Your task to perform on an android device: toggle notifications settings in the gmail app Image 0: 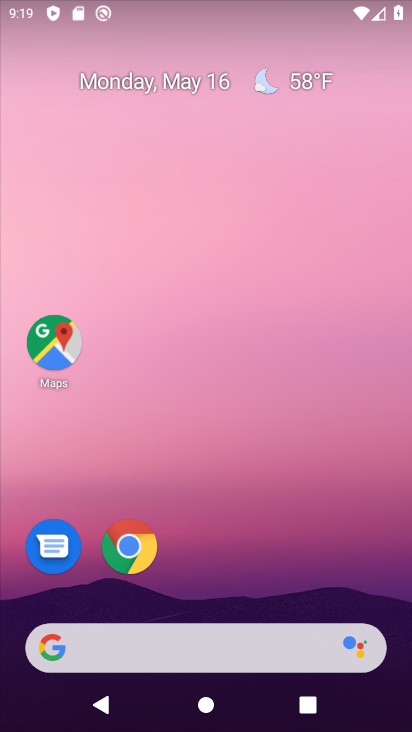
Step 0: drag from (296, 569) to (168, 133)
Your task to perform on an android device: toggle notifications settings in the gmail app Image 1: 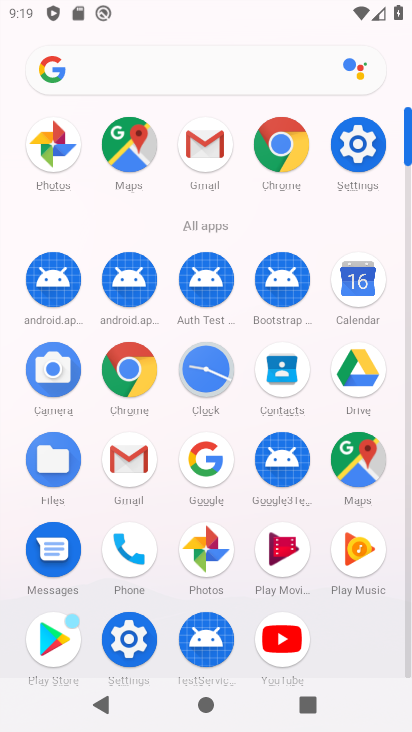
Step 1: click (204, 143)
Your task to perform on an android device: toggle notifications settings in the gmail app Image 2: 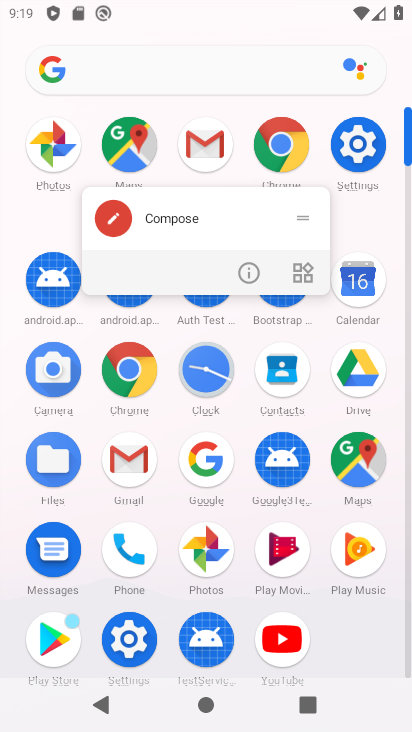
Step 2: click (204, 143)
Your task to perform on an android device: toggle notifications settings in the gmail app Image 3: 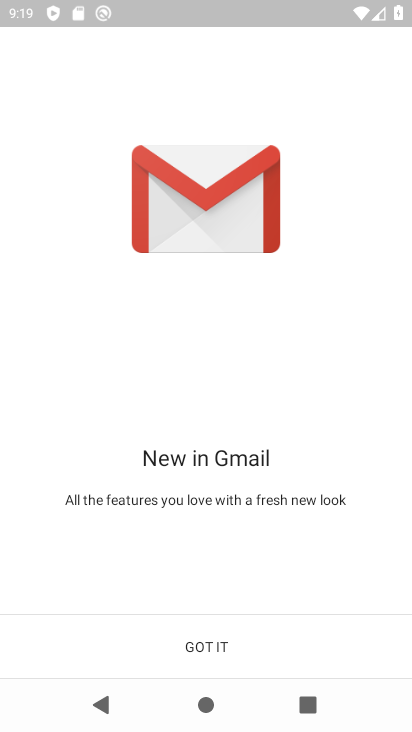
Step 3: click (204, 637)
Your task to perform on an android device: toggle notifications settings in the gmail app Image 4: 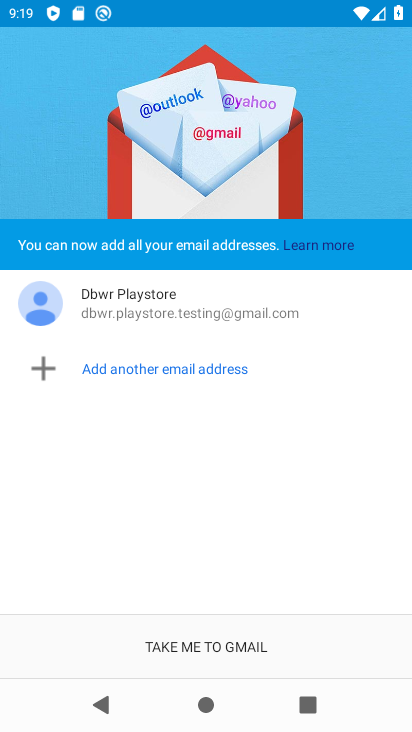
Step 4: click (207, 651)
Your task to perform on an android device: toggle notifications settings in the gmail app Image 5: 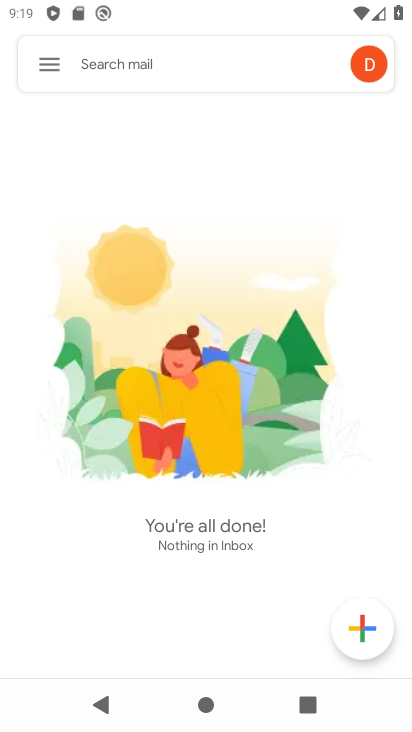
Step 5: click (49, 64)
Your task to perform on an android device: toggle notifications settings in the gmail app Image 6: 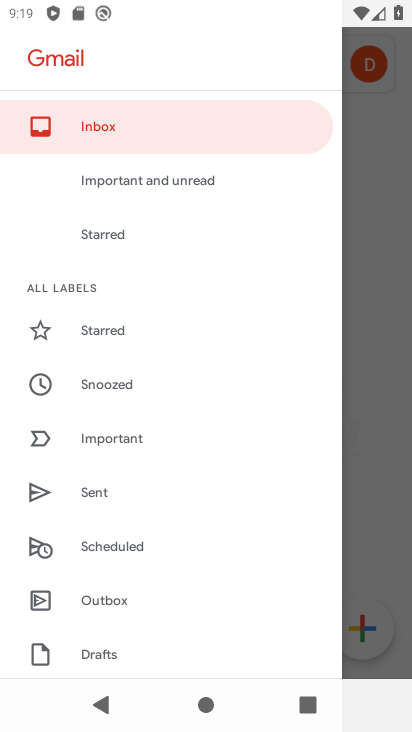
Step 6: drag from (144, 515) to (152, 430)
Your task to perform on an android device: toggle notifications settings in the gmail app Image 7: 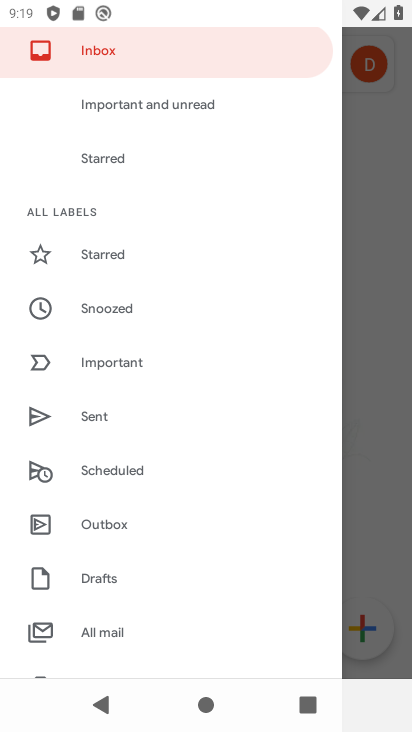
Step 7: drag from (110, 546) to (135, 469)
Your task to perform on an android device: toggle notifications settings in the gmail app Image 8: 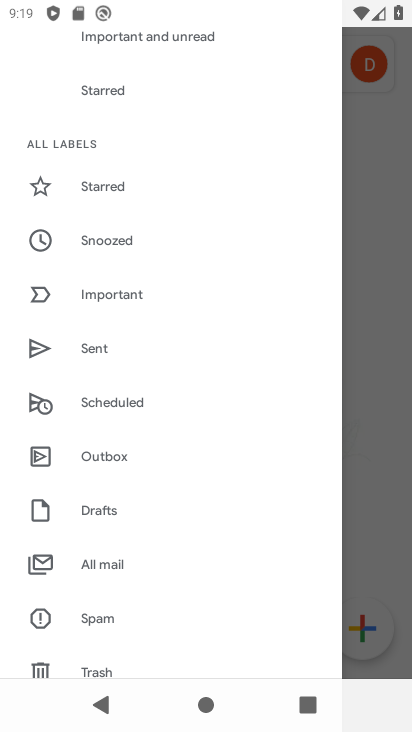
Step 8: drag from (100, 531) to (128, 462)
Your task to perform on an android device: toggle notifications settings in the gmail app Image 9: 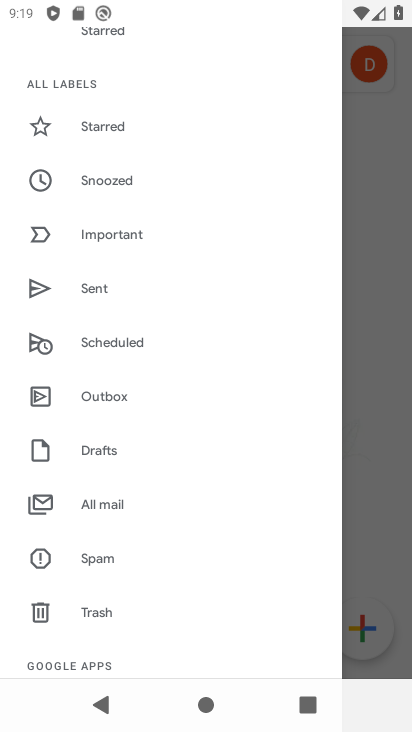
Step 9: drag from (98, 524) to (127, 448)
Your task to perform on an android device: toggle notifications settings in the gmail app Image 10: 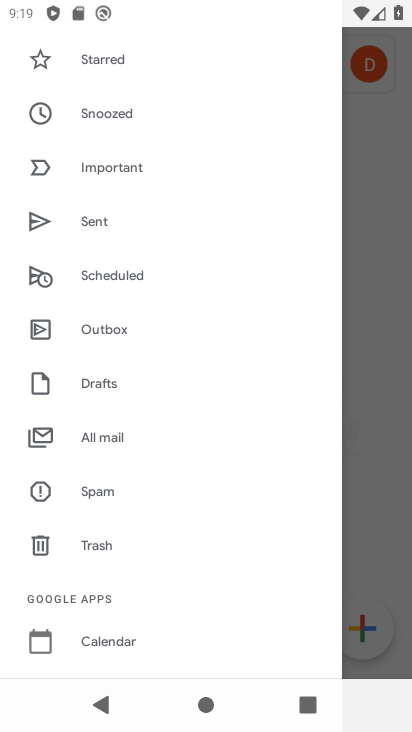
Step 10: drag from (93, 520) to (130, 449)
Your task to perform on an android device: toggle notifications settings in the gmail app Image 11: 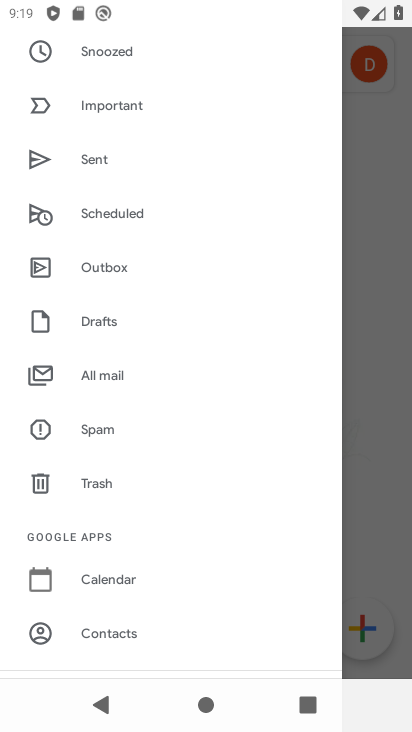
Step 11: drag from (84, 503) to (129, 425)
Your task to perform on an android device: toggle notifications settings in the gmail app Image 12: 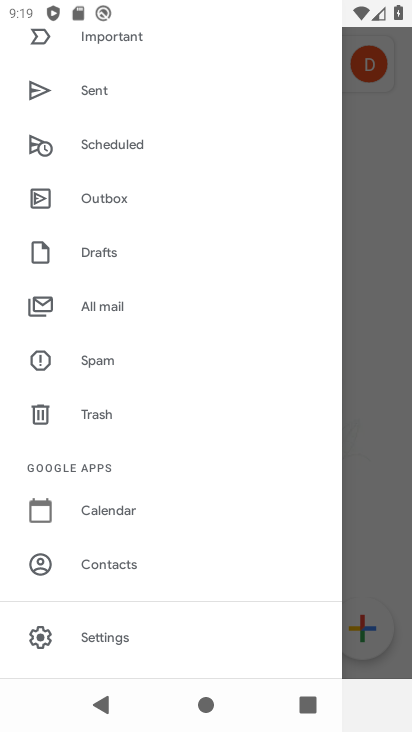
Step 12: drag from (91, 530) to (134, 456)
Your task to perform on an android device: toggle notifications settings in the gmail app Image 13: 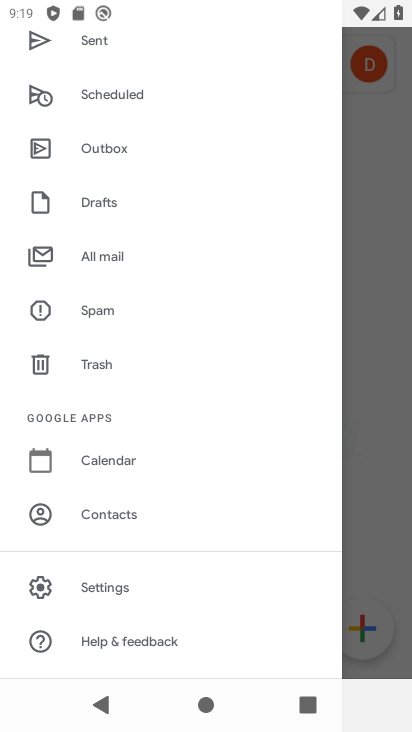
Step 13: click (112, 589)
Your task to perform on an android device: toggle notifications settings in the gmail app Image 14: 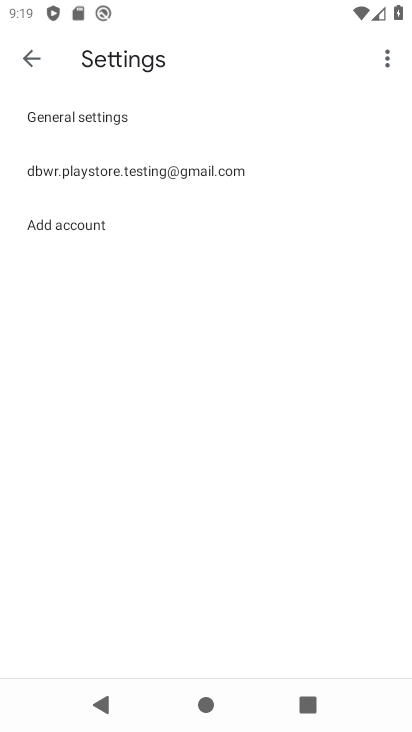
Step 14: click (103, 168)
Your task to perform on an android device: toggle notifications settings in the gmail app Image 15: 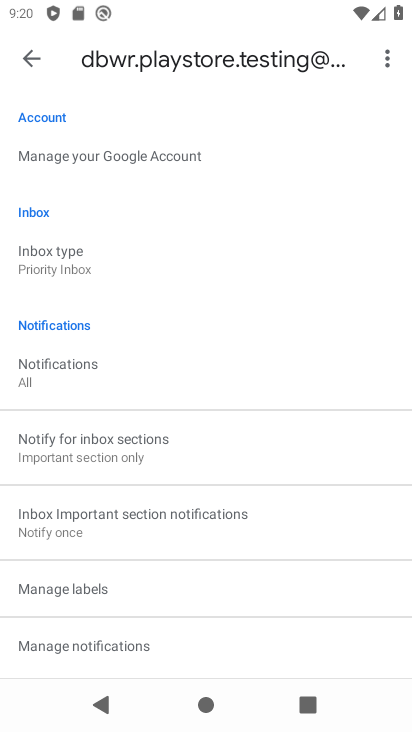
Step 15: drag from (151, 492) to (170, 422)
Your task to perform on an android device: toggle notifications settings in the gmail app Image 16: 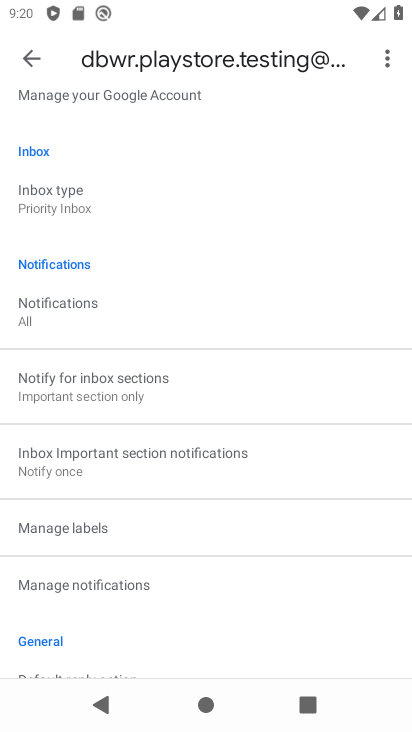
Step 16: drag from (148, 527) to (196, 456)
Your task to perform on an android device: toggle notifications settings in the gmail app Image 17: 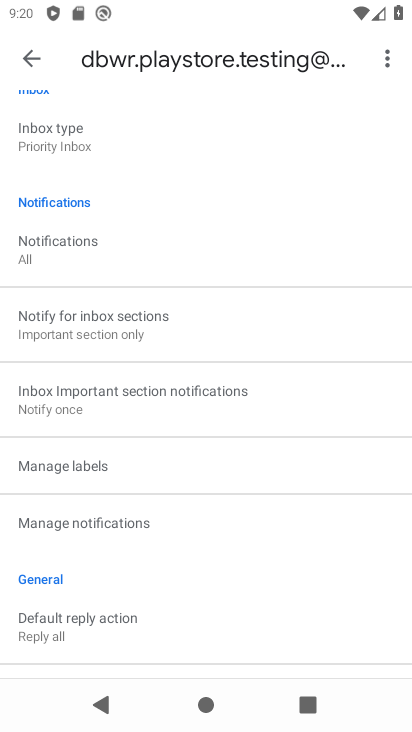
Step 17: click (126, 518)
Your task to perform on an android device: toggle notifications settings in the gmail app Image 18: 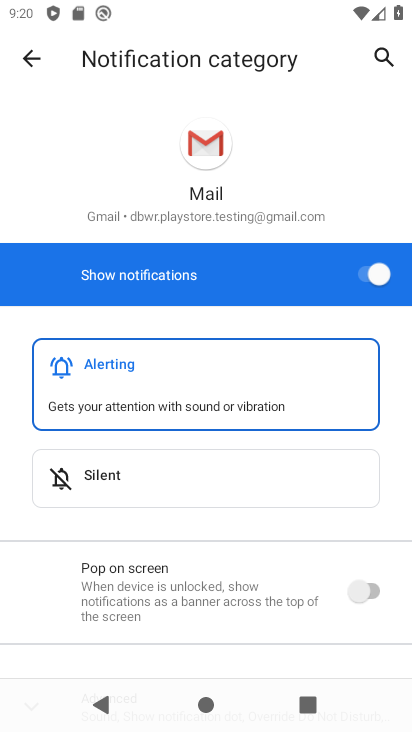
Step 18: click (374, 273)
Your task to perform on an android device: toggle notifications settings in the gmail app Image 19: 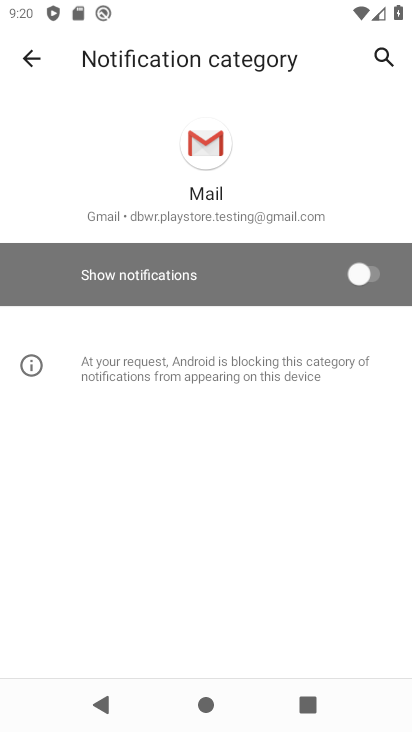
Step 19: task complete